Your task to perform on an android device: Open Google Image 0: 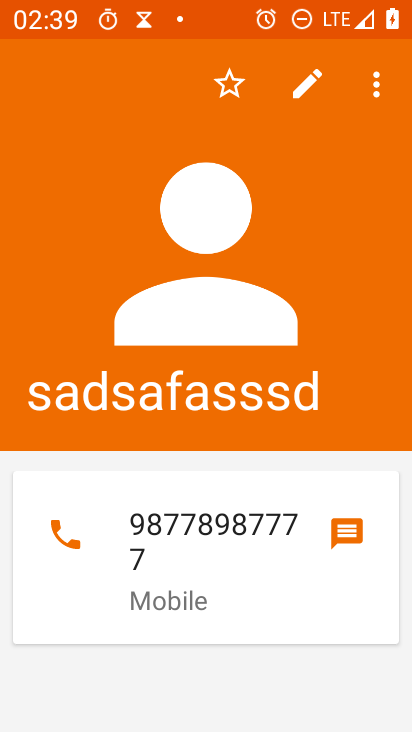
Step 0: press home button
Your task to perform on an android device: Open Google Image 1: 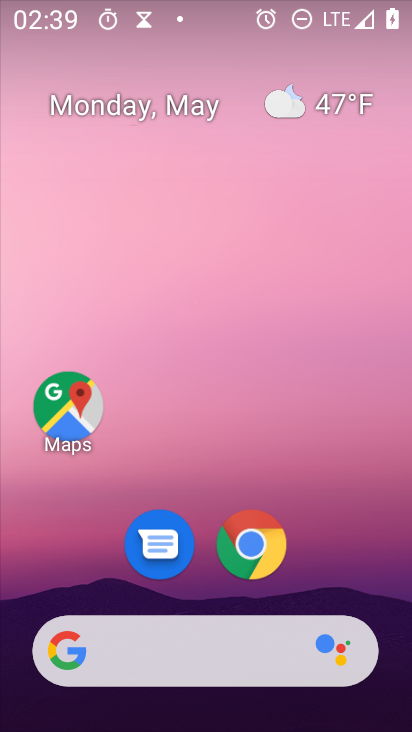
Step 1: drag from (289, 589) to (375, 18)
Your task to perform on an android device: Open Google Image 2: 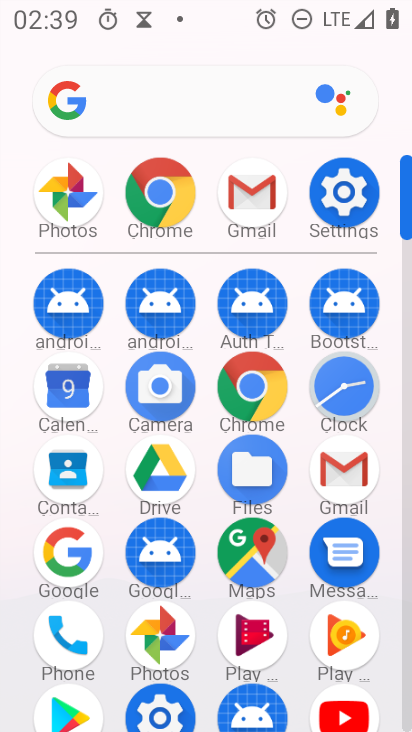
Step 2: click (240, 388)
Your task to perform on an android device: Open Google Image 3: 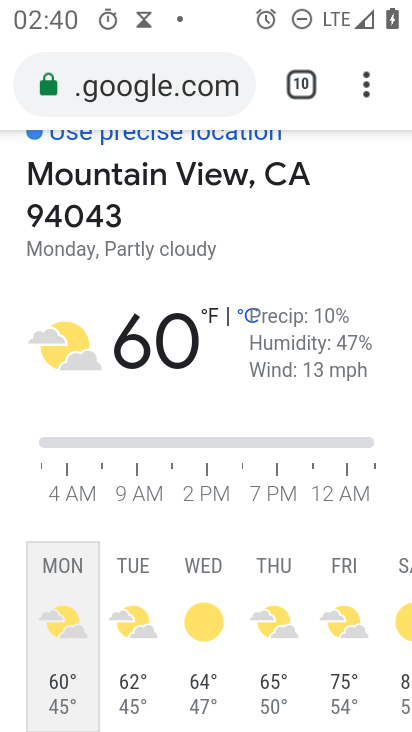
Step 3: click (368, 86)
Your task to perform on an android device: Open Google Image 4: 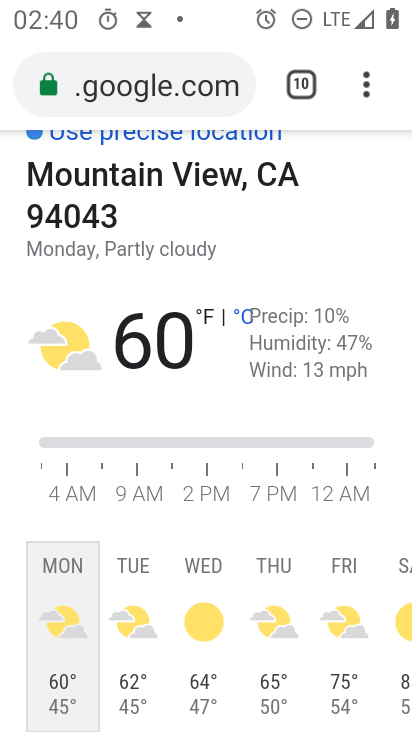
Step 4: task complete